Your task to perform on an android device: search for starred emails in the gmail app Image 0: 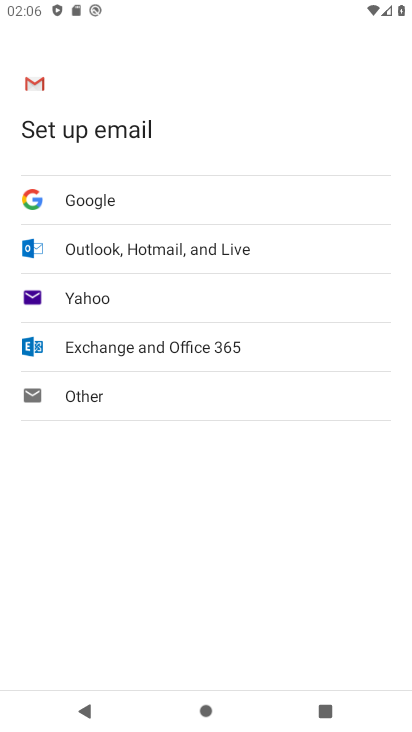
Step 0: press home button
Your task to perform on an android device: search for starred emails in the gmail app Image 1: 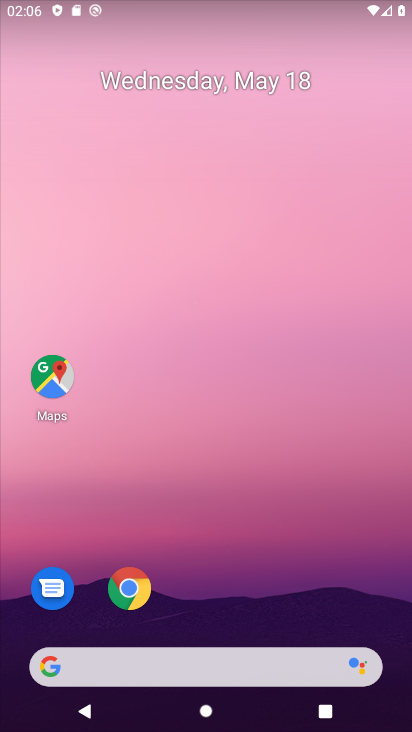
Step 1: drag from (48, 596) to (240, 253)
Your task to perform on an android device: search for starred emails in the gmail app Image 2: 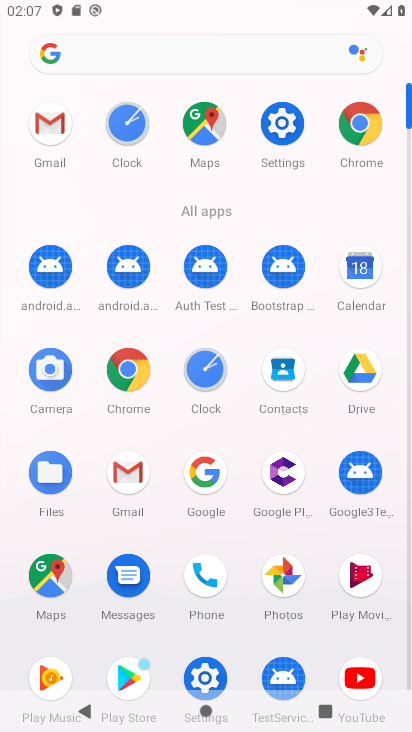
Step 2: click (127, 485)
Your task to perform on an android device: search for starred emails in the gmail app Image 3: 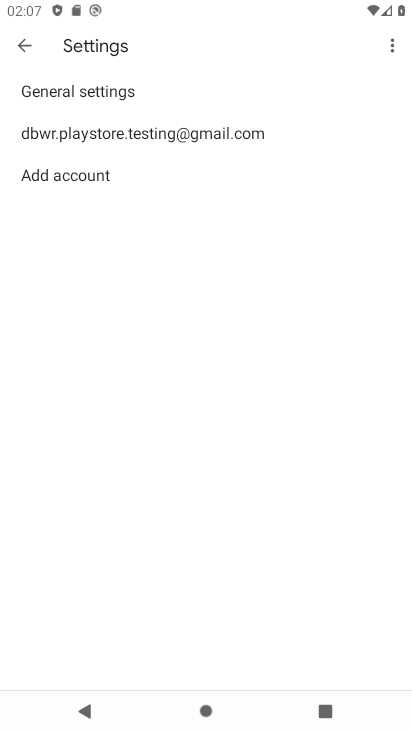
Step 3: click (23, 40)
Your task to perform on an android device: search for starred emails in the gmail app Image 4: 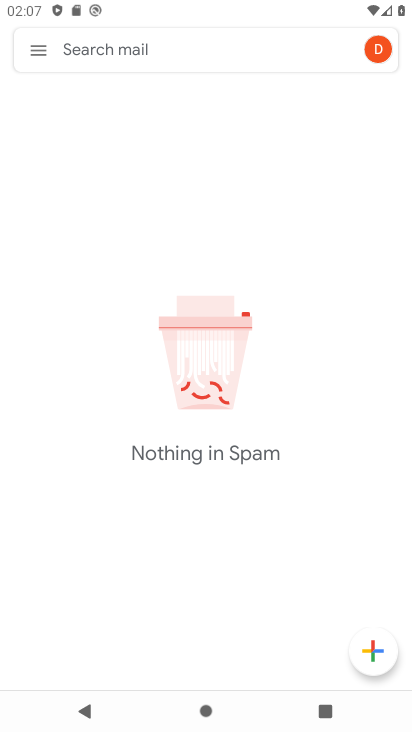
Step 4: click (45, 52)
Your task to perform on an android device: search for starred emails in the gmail app Image 5: 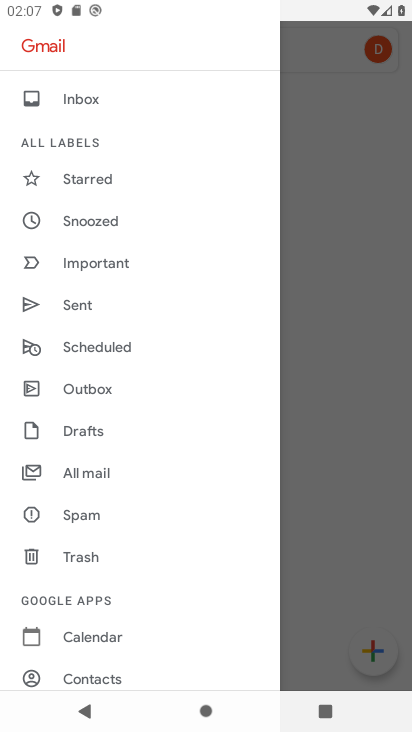
Step 5: click (85, 182)
Your task to perform on an android device: search for starred emails in the gmail app Image 6: 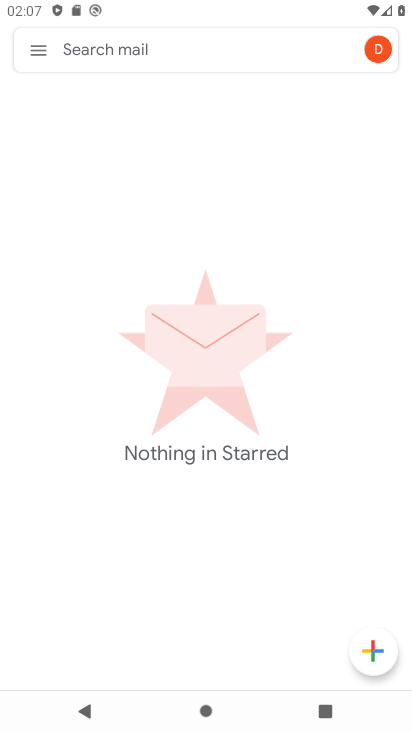
Step 6: task complete